Your task to perform on an android device: refresh tabs in the chrome app Image 0: 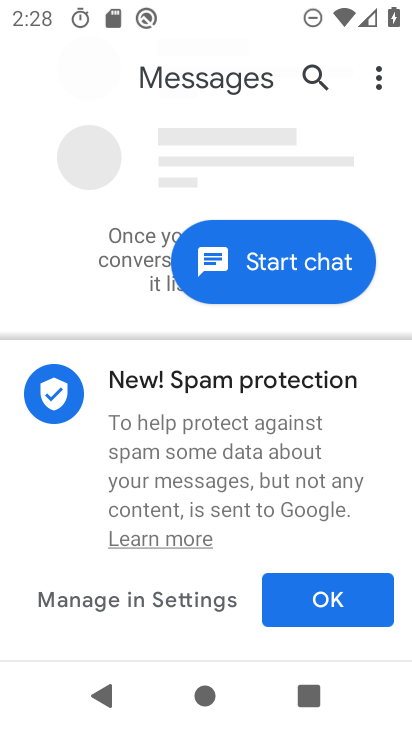
Step 0: press home button
Your task to perform on an android device: refresh tabs in the chrome app Image 1: 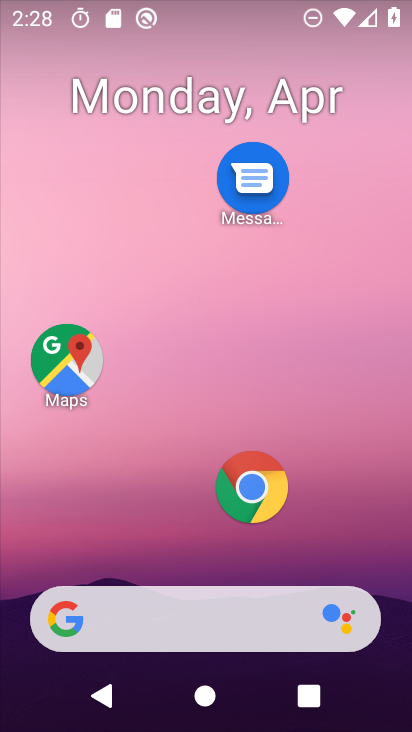
Step 1: drag from (320, 610) to (329, 23)
Your task to perform on an android device: refresh tabs in the chrome app Image 2: 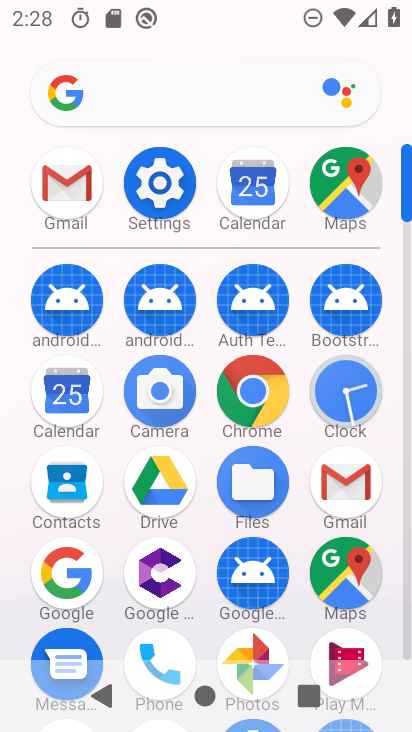
Step 2: click (258, 412)
Your task to perform on an android device: refresh tabs in the chrome app Image 3: 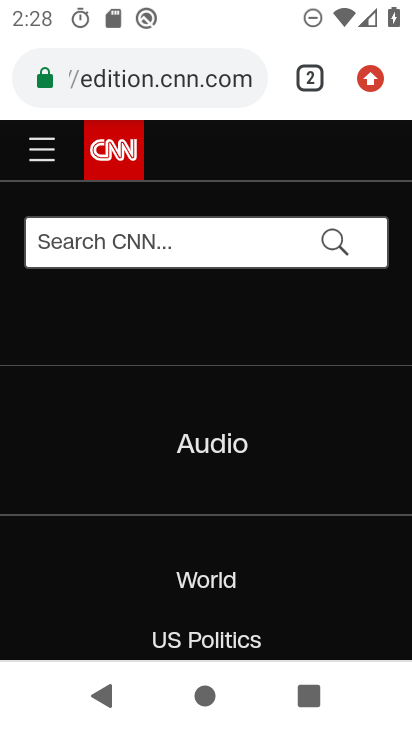
Step 3: click (365, 77)
Your task to perform on an android device: refresh tabs in the chrome app Image 4: 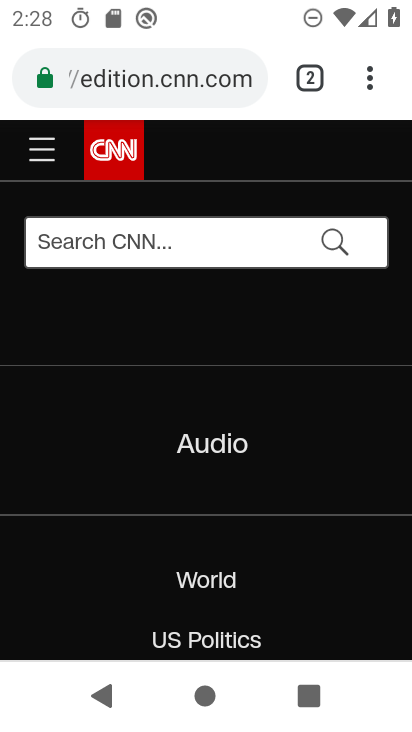
Step 4: task complete